Your task to perform on an android device: Toggle the flashlight Image 0: 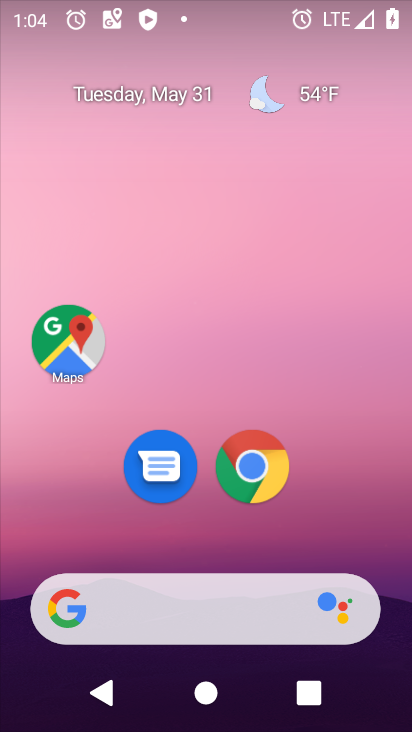
Step 0: drag from (176, 16) to (174, 501)
Your task to perform on an android device: Toggle the flashlight Image 1: 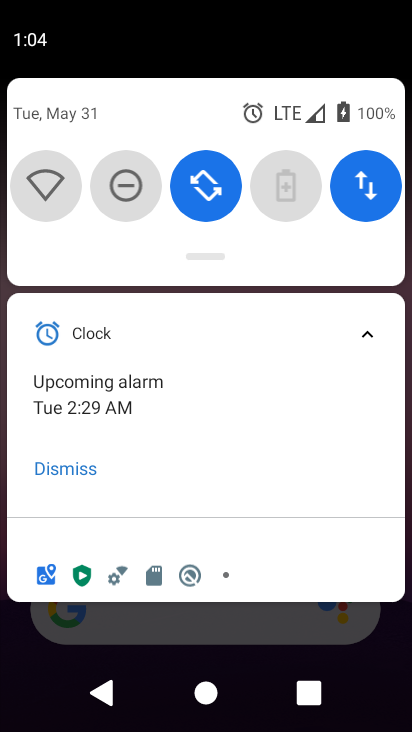
Step 1: task complete